Your task to perform on an android device: Check the news Image 0: 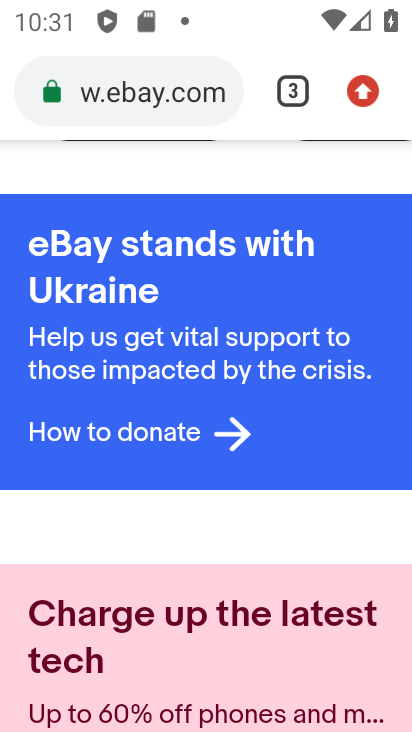
Step 0: press home button
Your task to perform on an android device: Check the news Image 1: 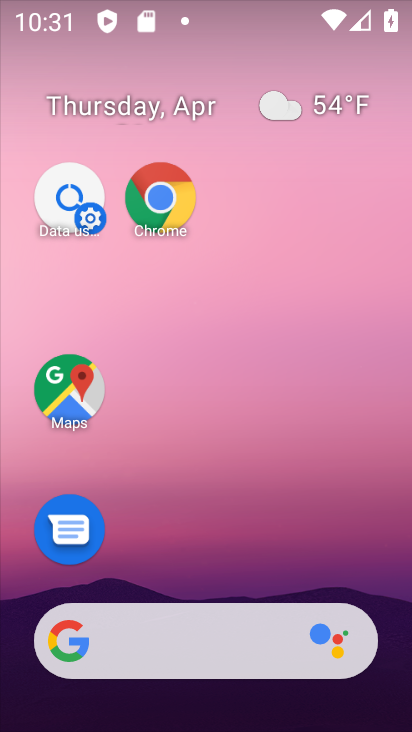
Step 1: drag from (33, 269) to (359, 275)
Your task to perform on an android device: Check the news Image 2: 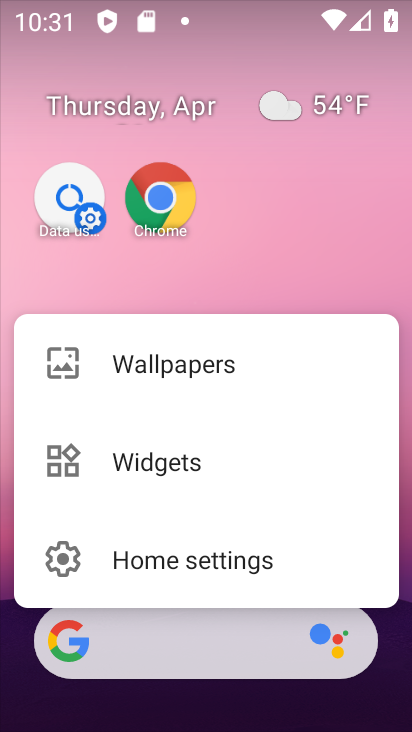
Step 2: click (179, 268)
Your task to perform on an android device: Check the news Image 3: 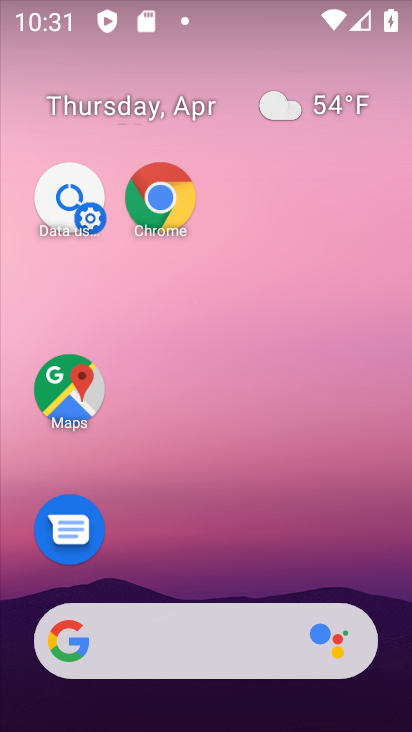
Step 3: drag from (125, 303) to (333, 303)
Your task to perform on an android device: Check the news Image 4: 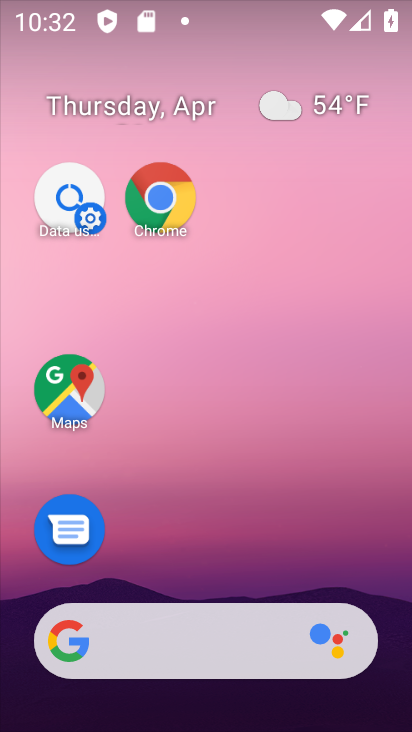
Step 4: drag from (47, 320) to (406, 316)
Your task to perform on an android device: Check the news Image 5: 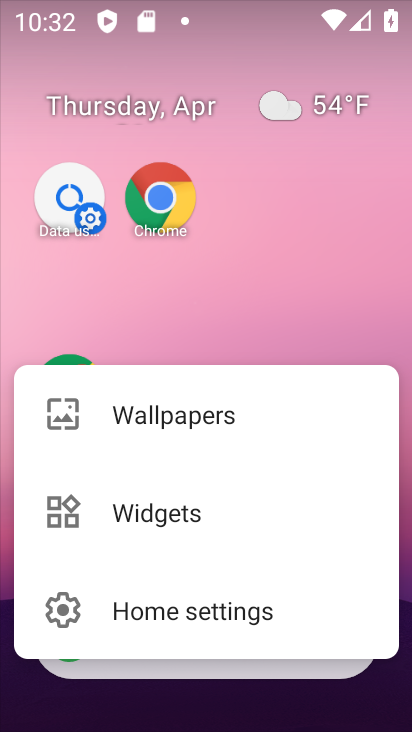
Step 5: click (210, 321)
Your task to perform on an android device: Check the news Image 6: 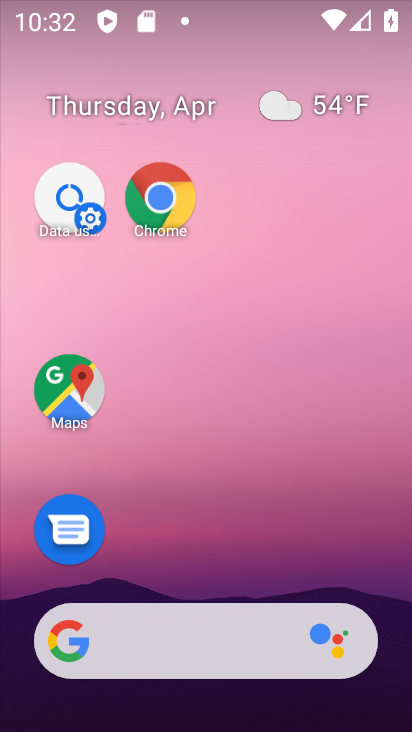
Step 6: task complete